Your task to perform on an android device: snooze an email in the gmail app Image 0: 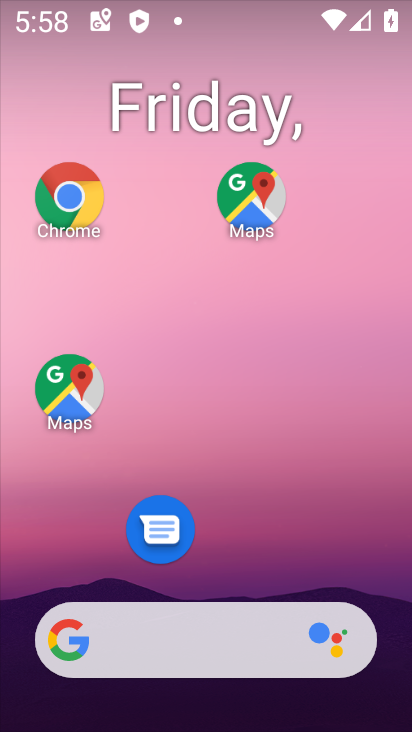
Step 0: drag from (223, 488) to (287, 5)
Your task to perform on an android device: snooze an email in the gmail app Image 1: 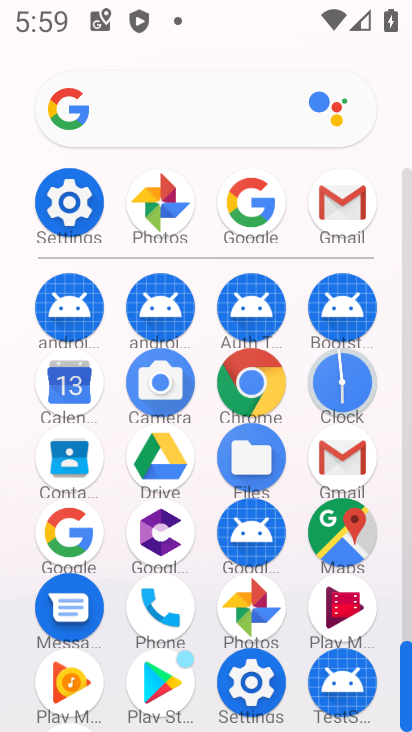
Step 1: click (332, 208)
Your task to perform on an android device: snooze an email in the gmail app Image 2: 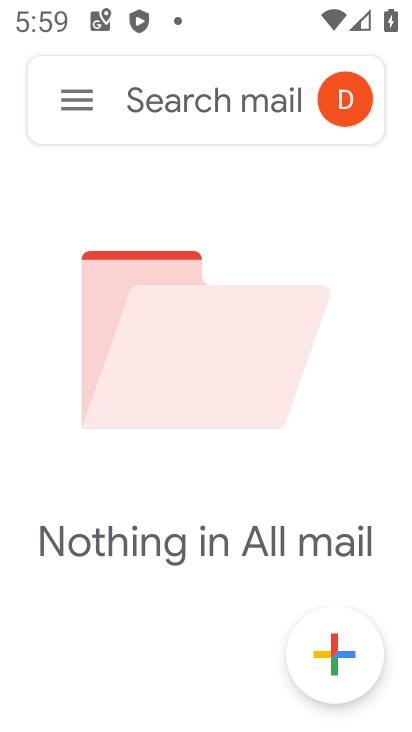
Step 2: task complete